Your task to perform on an android device: allow cookies in the chrome app Image 0: 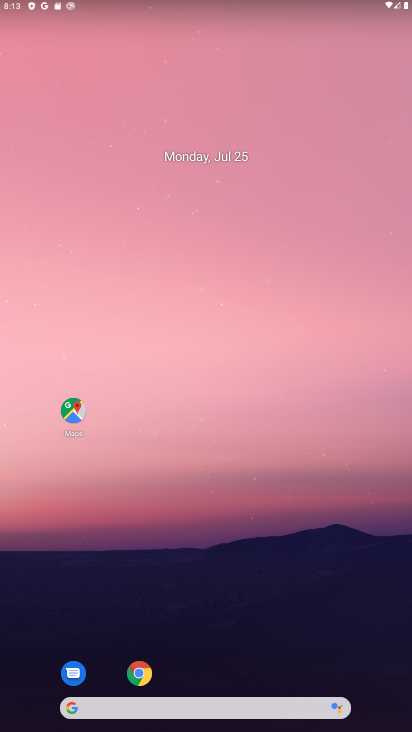
Step 0: click (129, 670)
Your task to perform on an android device: allow cookies in the chrome app Image 1: 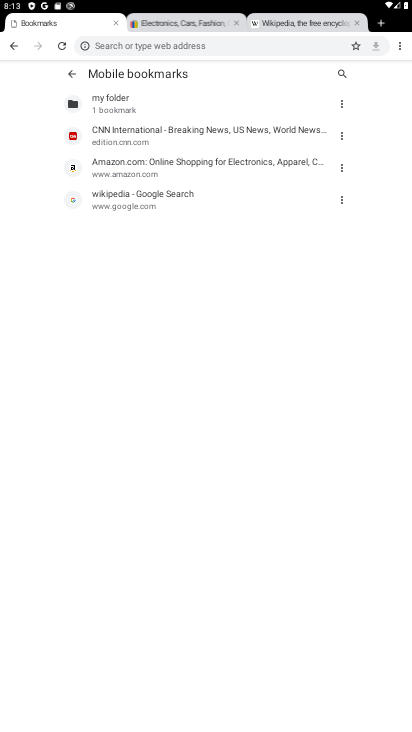
Step 1: click (400, 47)
Your task to perform on an android device: allow cookies in the chrome app Image 2: 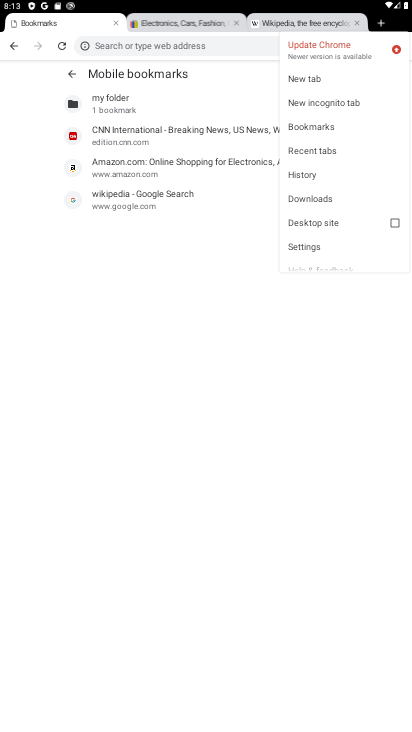
Step 2: click (306, 252)
Your task to perform on an android device: allow cookies in the chrome app Image 3: 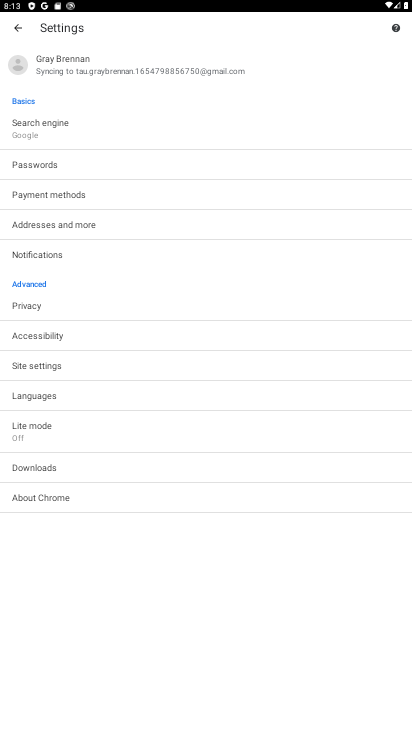
Step 3: task complete